Your task to perform on an android device: Open Yahoo.com Image 0: 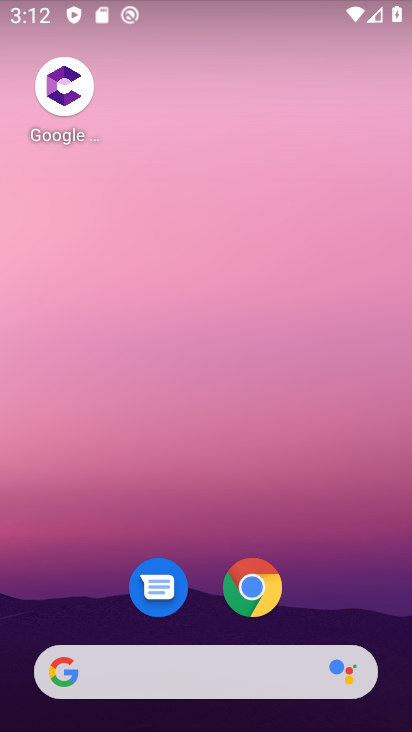
Step 0: drag from (287, 443) to (195, 3)
Your task to perform on an android device: Open Yahoo.com Image 1: 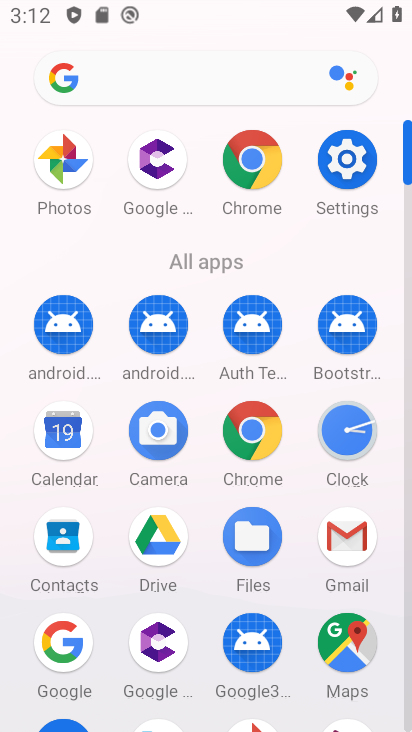
Step 1: drag from (14, 592) to (13, 167)
Your task to perform on an android device: Open Yahoo.com Image 2: 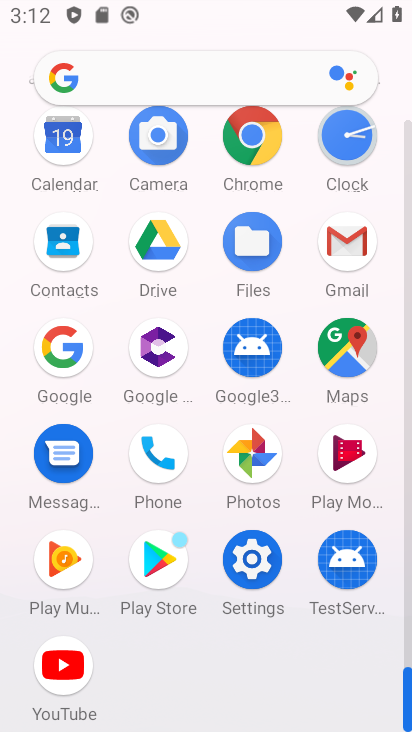
Step 2: click (247, 132)
Your task to perform on an android device: Open Yahoo.com Image 3: 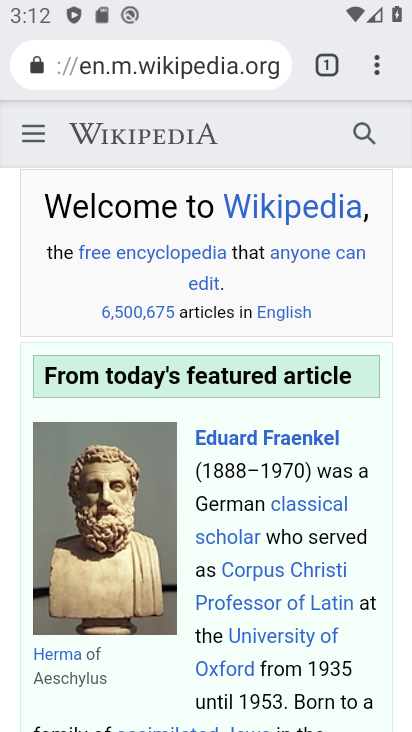
Step 3: click (199, 52)
Your task to perform on an android device: Open Yahoo.com Image 4: 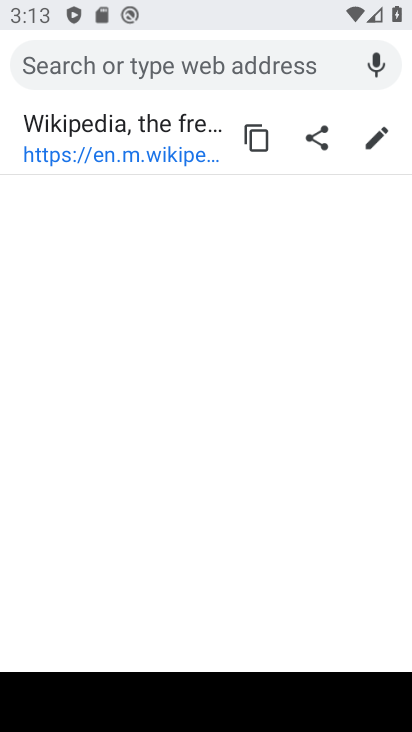
Step 4: type "Yahoo.com"
Your task to perform on an android device: Open Yahoo.com Image 5: 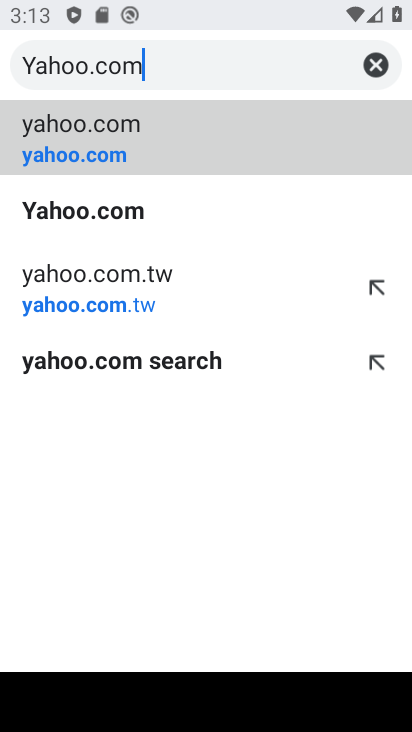
Step 5: click (187, 153)
Your task to perform on an android device: Open Yahoo.com Image 6: 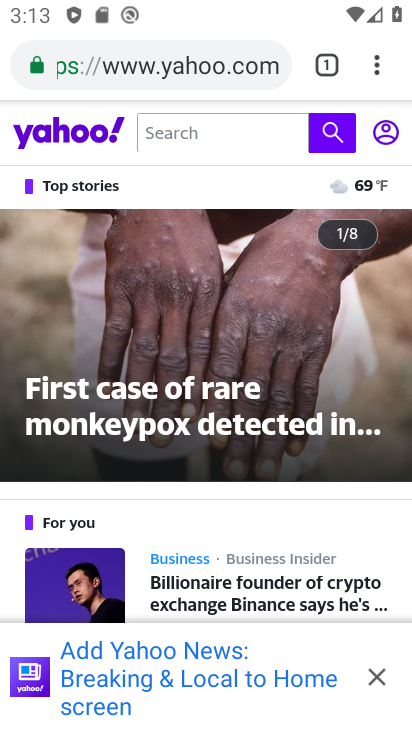
Step 6: task complete